Your task to perform on an android device: Toggle the flashlight Image 0: 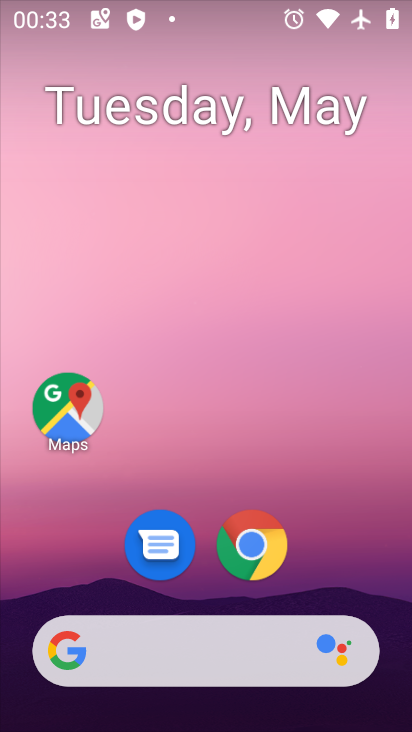
Step 0: drag from (341, 596) to (327, 0)
Your task to perform on an android device: Toggle the flashlight Image 1: 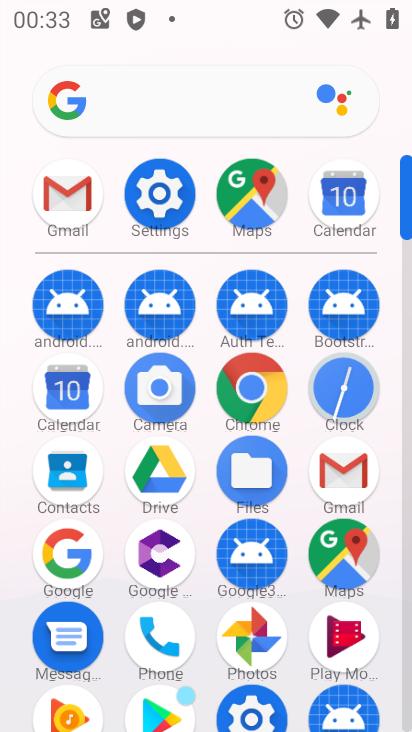
Step 1: click (165, 189)
Your task to perform on an android device: Toggle the flashlight Image 2: 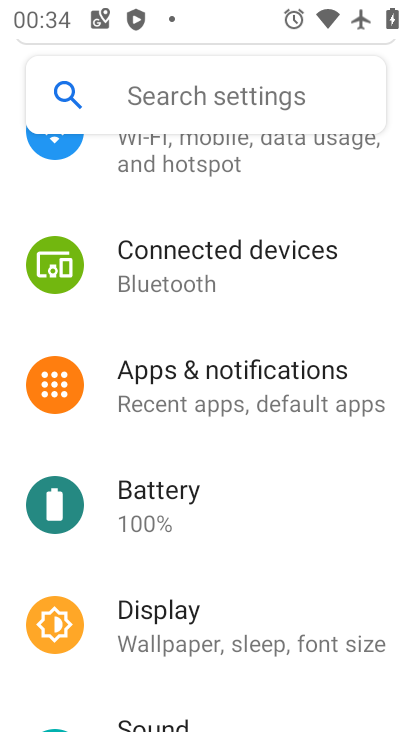
Step 2: task complete